Your task to perform on an android device: Search for pizza restaurants on Maps Image 0: 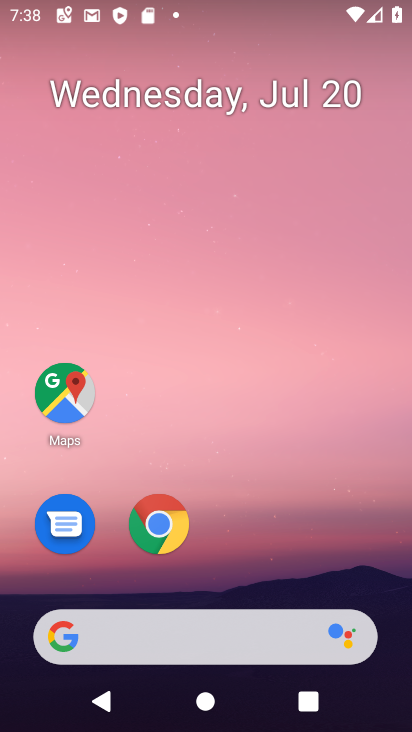
Step 0: click (74, 391)
Your task to perform on an android device: Search for pizza restaurants on Maps Image 1: 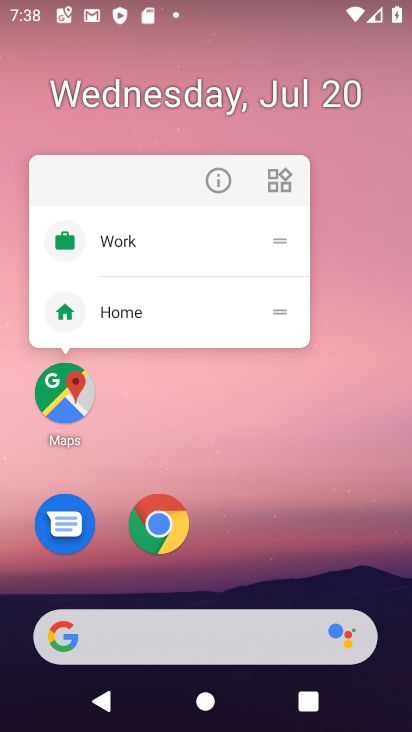
Step 1: click (63, 399)
Your task to perform on an android device: Search for pizza restaurants on Maps Image 2: 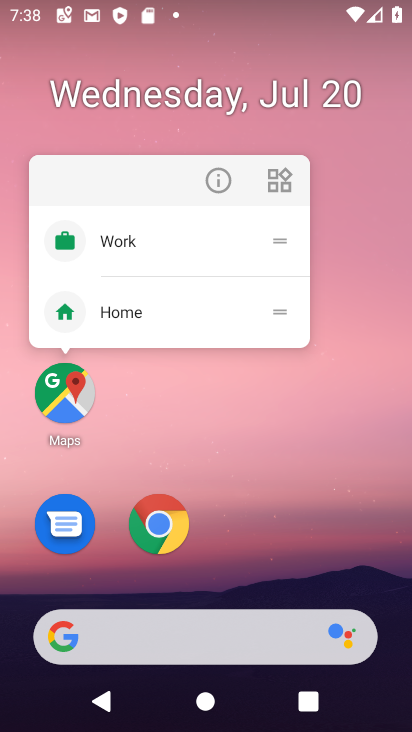
Step 2: click (65, 396)
Your task to perform on an android device: Search for pizza restaurants on Maps Image 3: 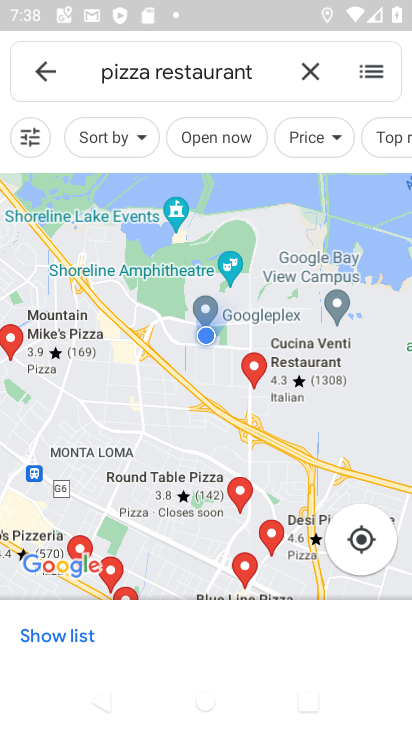
Step 3: drag from (203, 520) to (310, 232)
Your task to perform on an android device: Search for pizza restaurants on Maps Image 4: 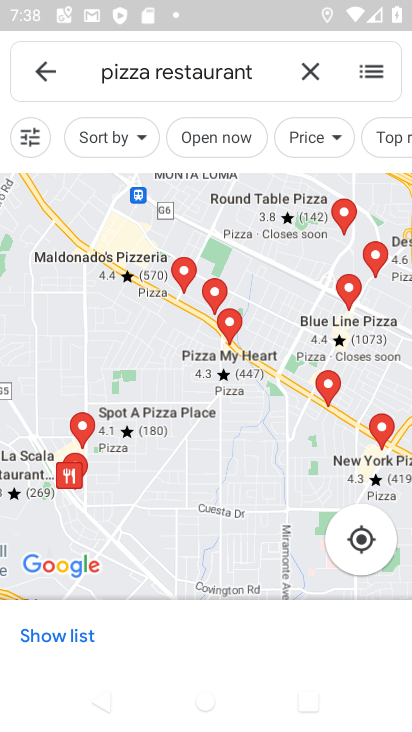
Step 4: click (68, 634)
Your task to perform on an android device: Search for pizza restaurants on Maps Image 5: 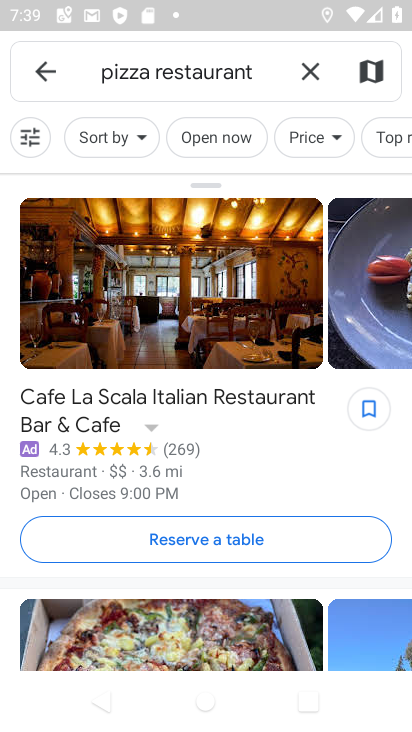
Step 5: task complete